Your task to perform on an android device: turn off notifications in google photos Image 0: 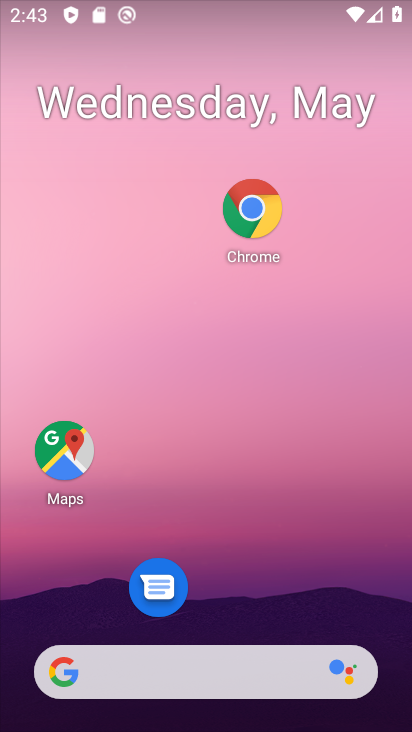
Step 0: drag from (227, 613) to (249, 68)
Your task to perform on an android device: turn off notifications in google photos Image 1: 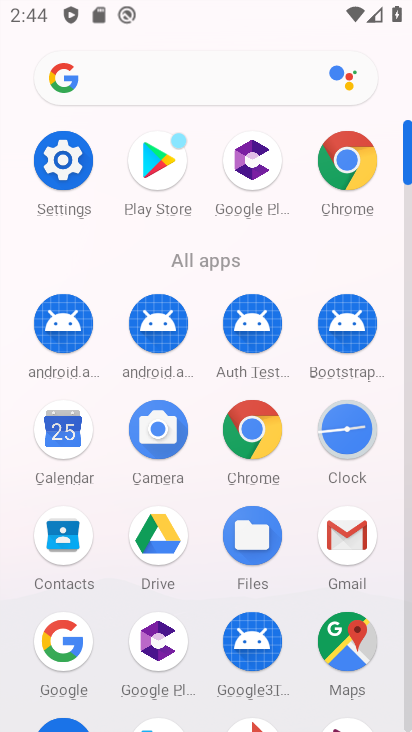
Step 1: click (61, 156)
Your task to perform on an android device: turn off notifications in google photos Image 2: 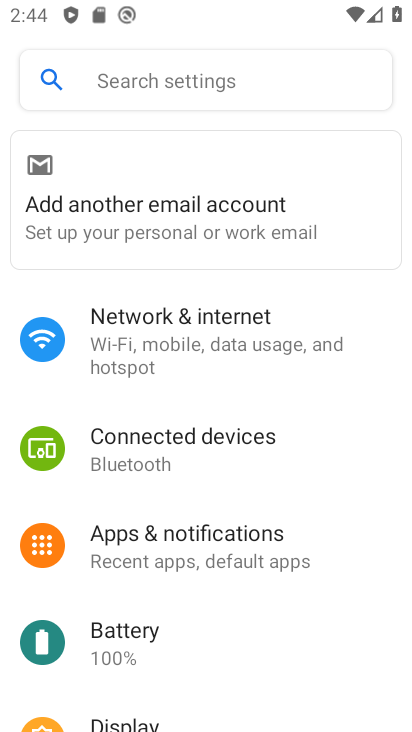
Step 2: click (195, 526)
Your task to perform on an android device: turn off notifications in google photos Image 3: 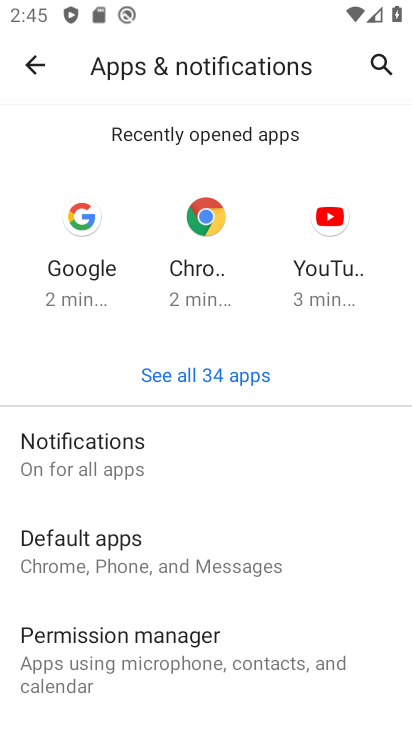
Step 3: click (214, 378)
Your task to perform on an android device: turn off notifications in google photos Image 4: 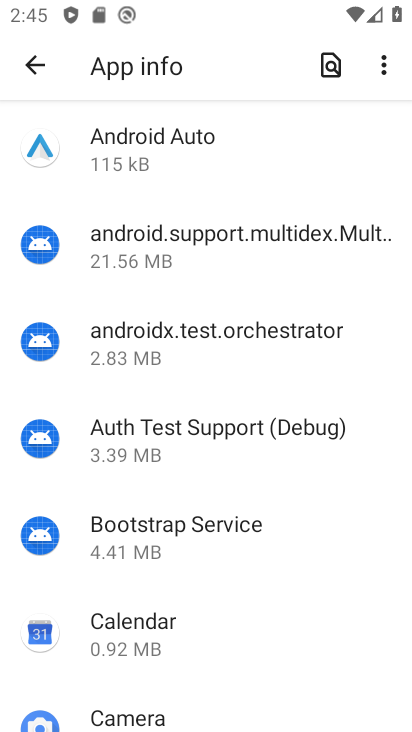
Step 4: drag from (176, 637) to (157, 184)
Your task to perform on an android device: turn off notifications in google photos Image 5: 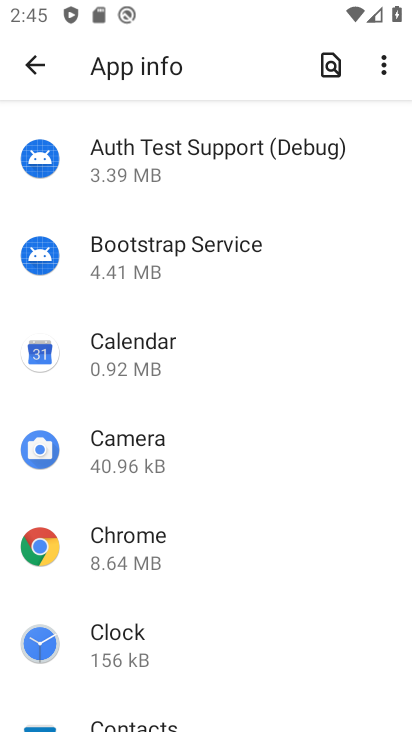
Step 5: drag from (153, 546) to (124, 57)
Your task to perform on an android device: turn off notifications in google photos Image 6: 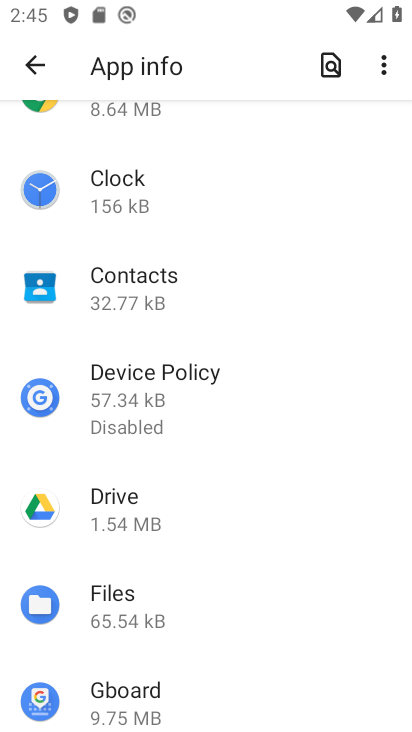
Step 6: drag from (132, 641) to (280, 105)
Your task to perform on an android device: turn off notifications in google photos Image 7: 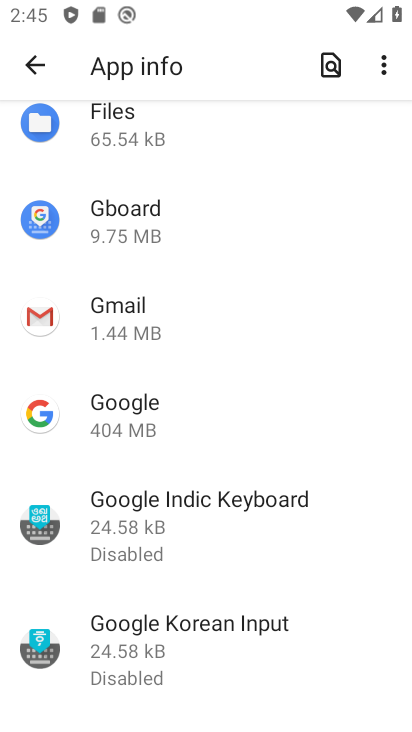
Step 7: drag from (154, 636) to (203, 77)
Your task to perform on an android device: turn off notifications in google photos Image 8: 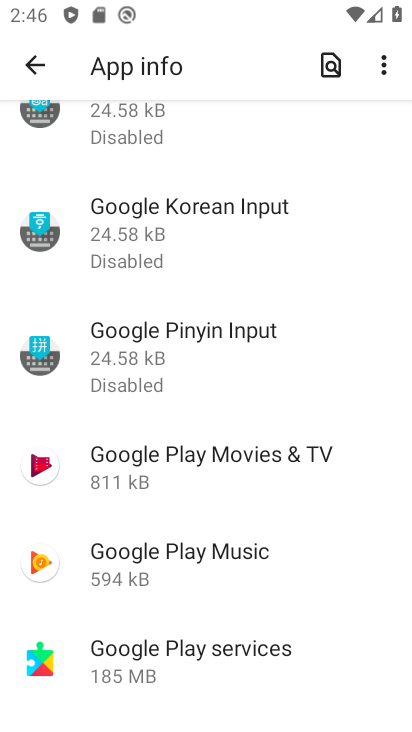
Step 8: drag from (159, 651) to (138, 98)
Your task to perform on an android device: turn off notifications in google photos Image 9: 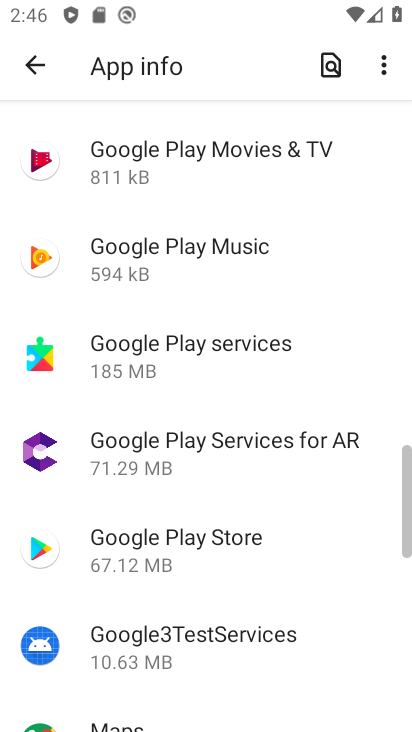
Step 9: drag from (161, 581) to (223, 191)
Your task to perform on an android device: turn off notifications in google photos Image 10: 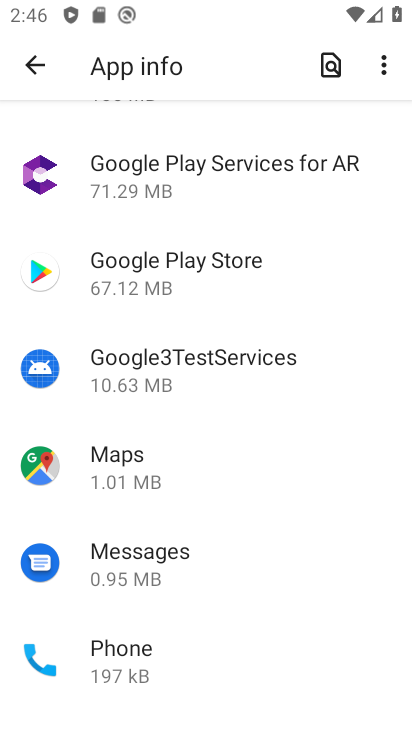
Step 10: drag from (156, 622) to (200, 197)
Your task to perform on an android device: turn off notifications in google photos Image 11: 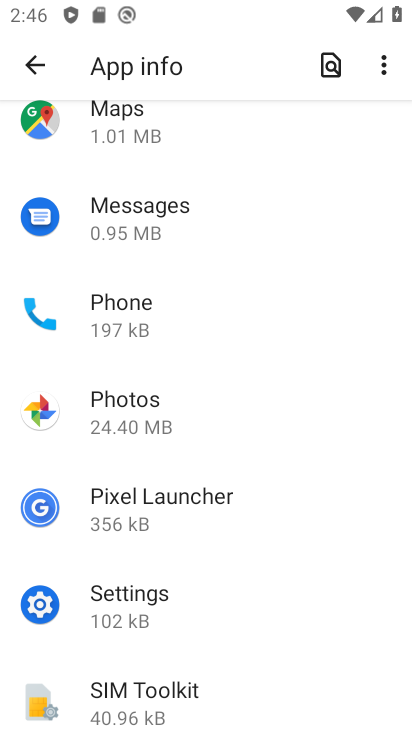
Step 11: drag from (147, 626) to (181, 269)
Your task to perform on an android device: turn off notifications in google photos Image 12: 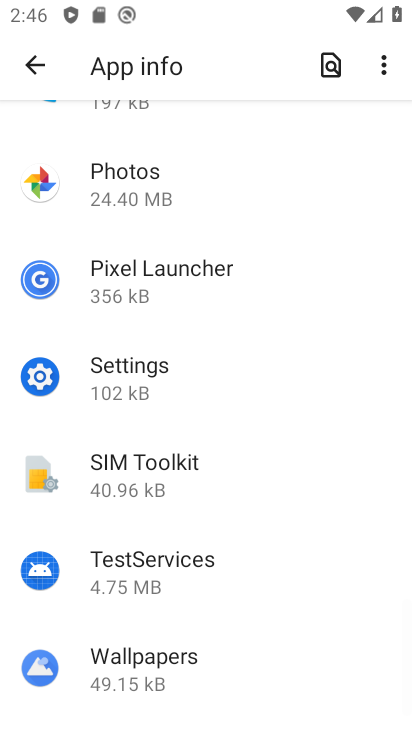
Step 12: click (137, 191)
Your task to perform on an android device: turn off notifications in google photos Image 13: 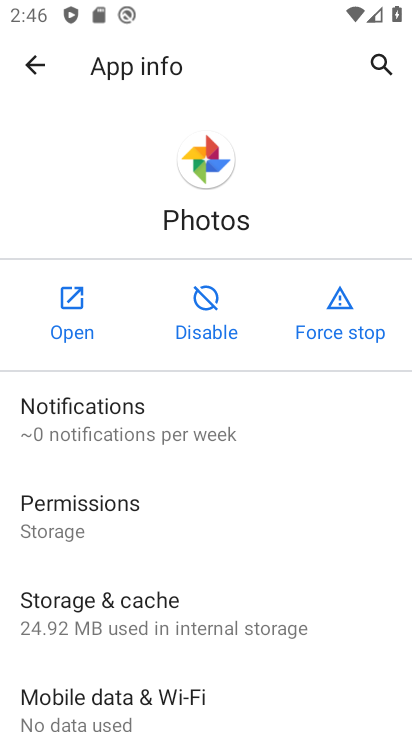
Step 13: click (157, 431)
Your task to perform on an android device: turn off notifications in google photos Image 14: 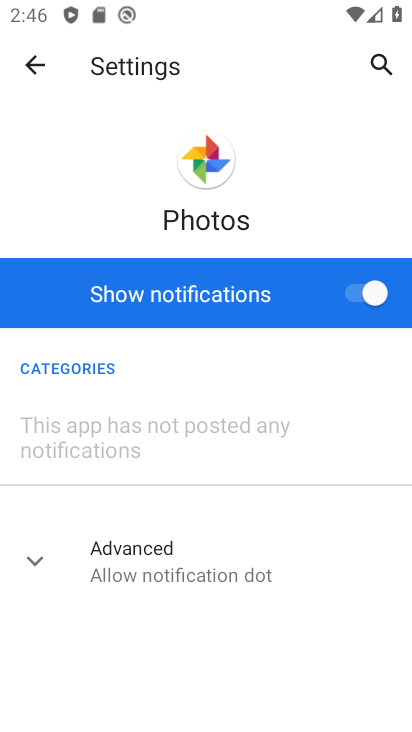
Step 14: click (351, 296)
Your task to perform on an android device: turn off notifications in google photos Image 15: 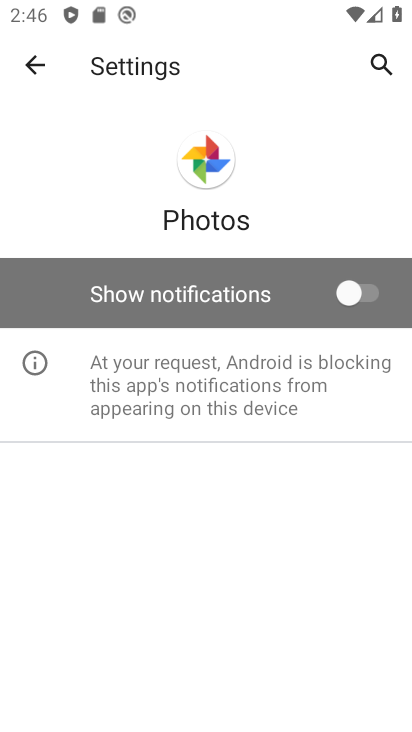
Step 15: task complete